Your task to perform on an android device: install app "Facebook" Image 0: 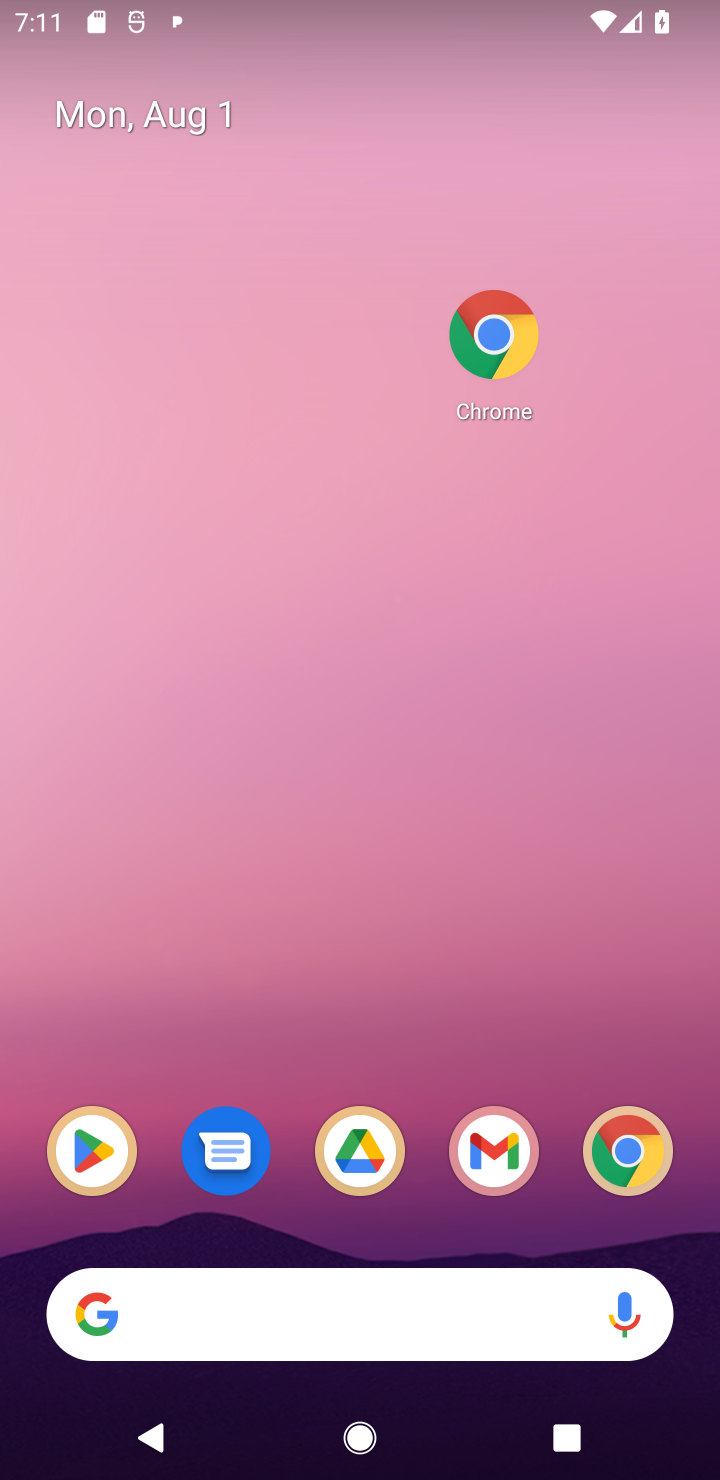
Step 0: click (90, 1167)
Your task to perform on an android device: install app "Facebook" Image 1: 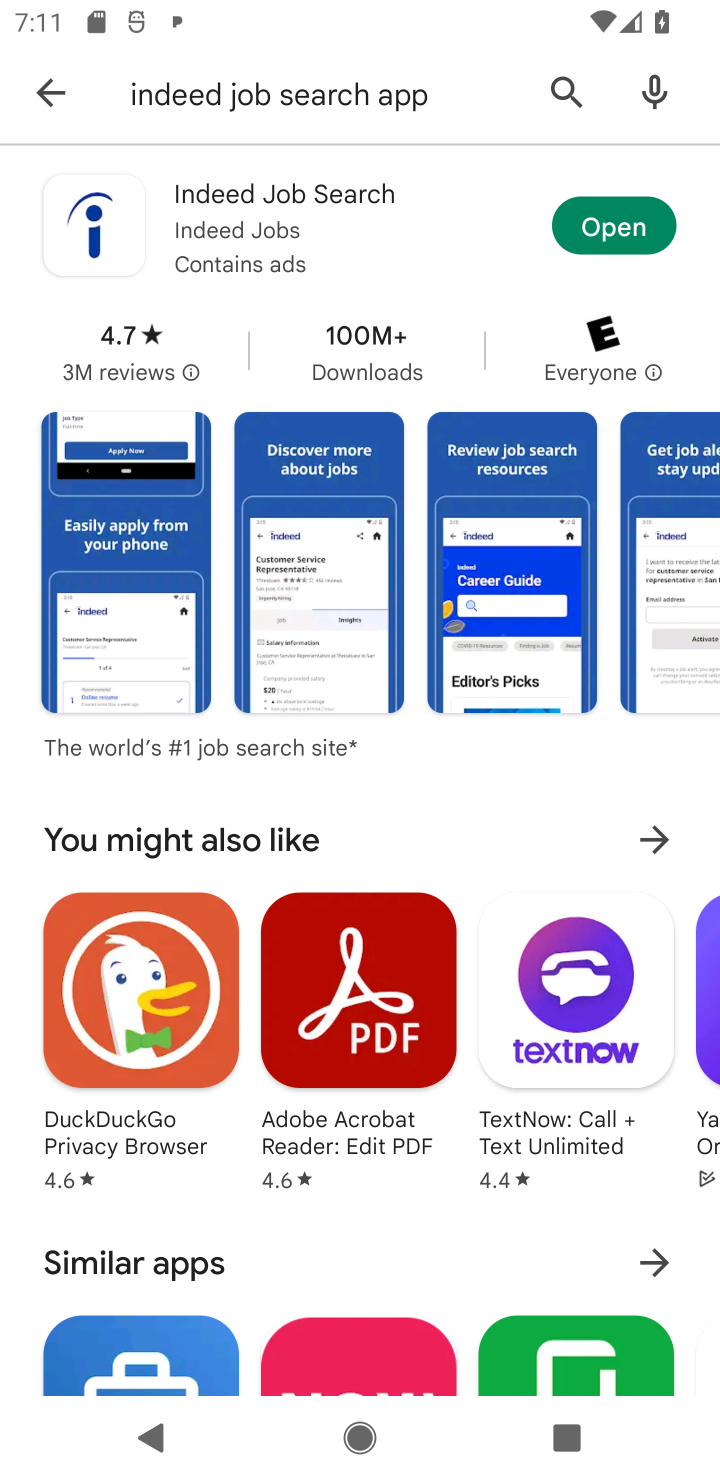
Step 1: click (557, 83)
Your task to perform on an android device: install app "Facebook" Image 2: 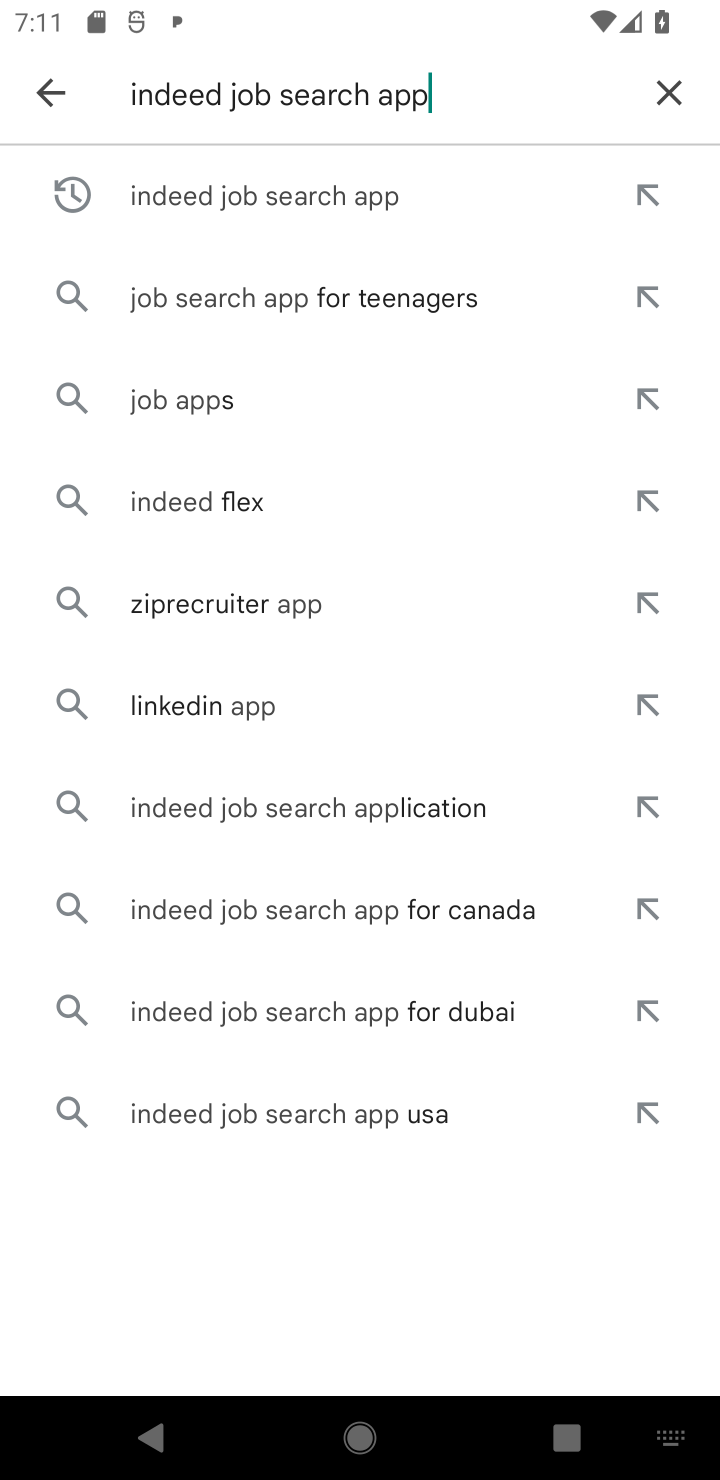
Step 2: click (682, 100)
Your task to perform on an android device: install app "Facebook" Image 3: 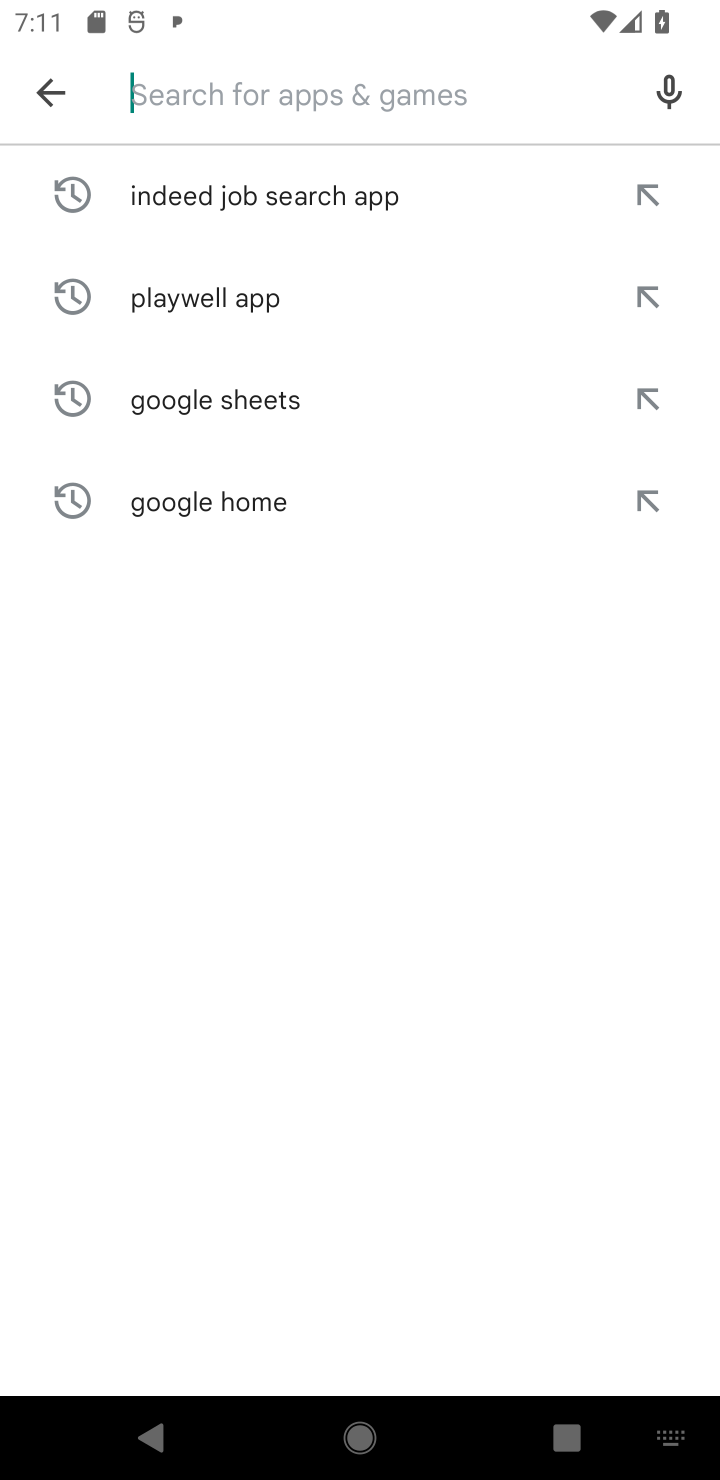
Step 3: type "Facebook"
Your task to perform on an android device: install app "Facebook" Image 4: 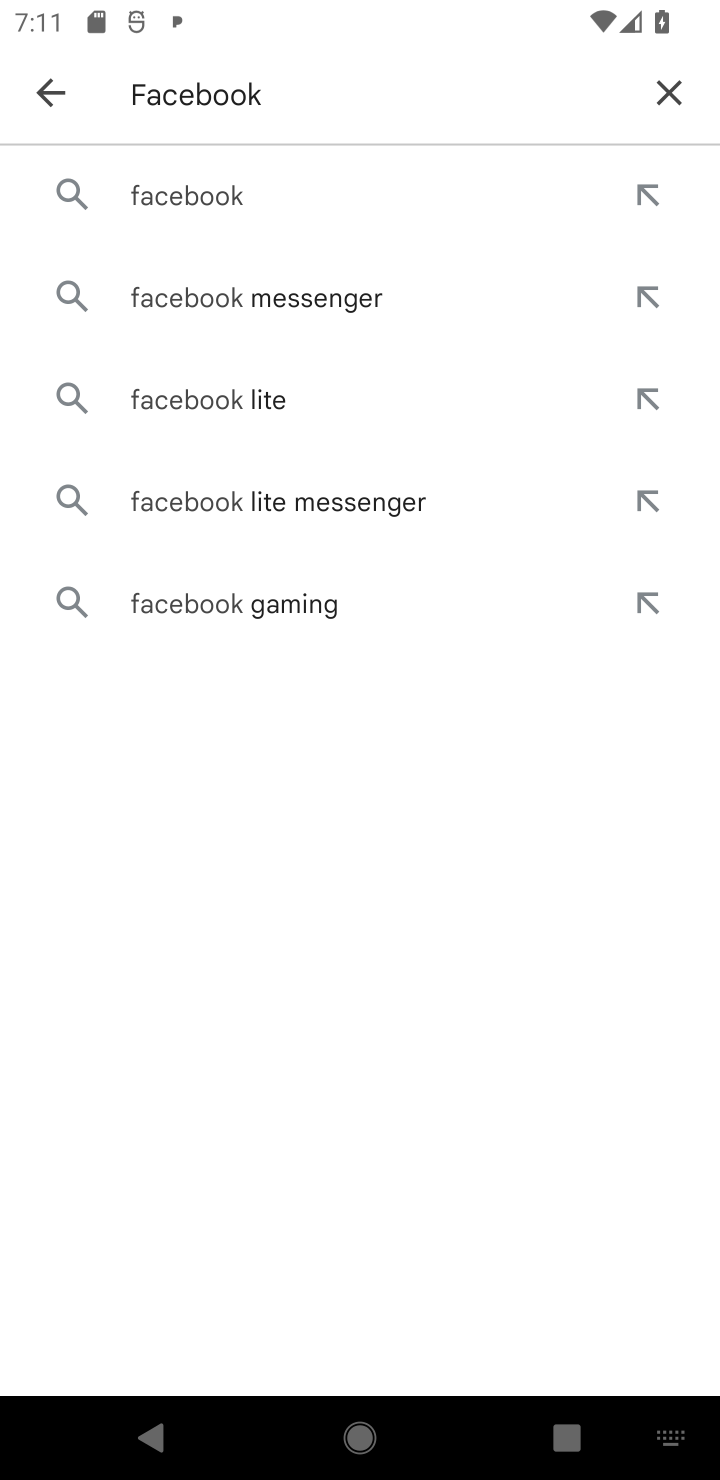
Step 4: click (146, 198)
Your task to perform on an android device: install app "Facebook" Image 5: 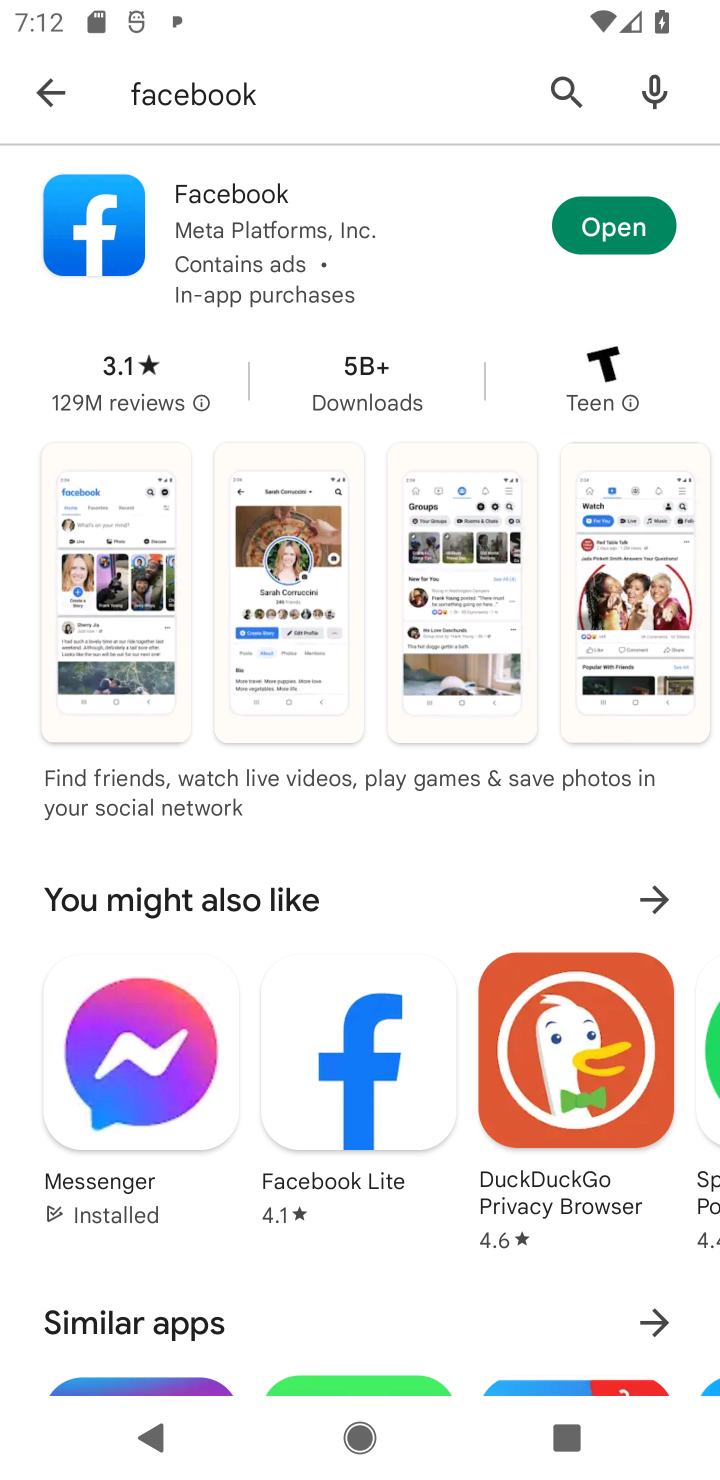
Step 5: task complete